Your task to perform on an android device: Go to accessibility settings Image 0: 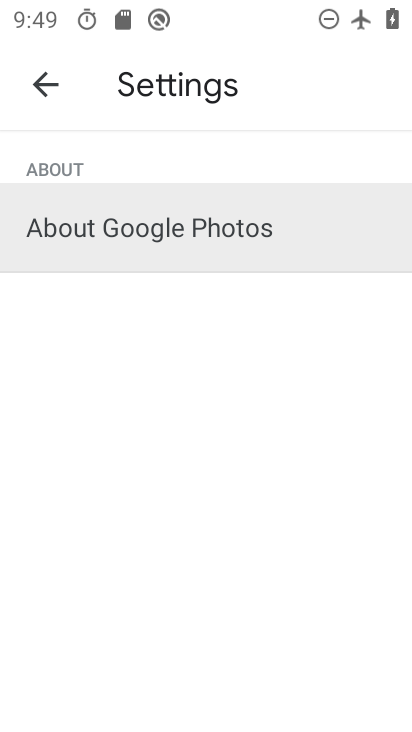
Step 0: press home button
Your task to perform on an android device: Go to accessibility settings Image 1: 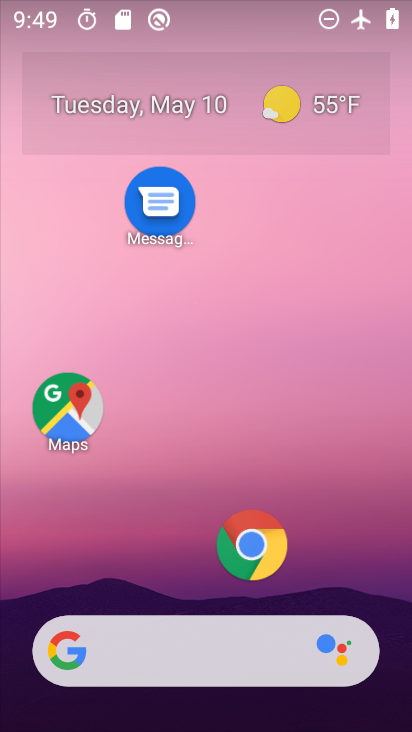
Step 1: drag from (190, 544) to (216, 101)
Your task to perform on an android device: Go to accessibility settings Image 2: 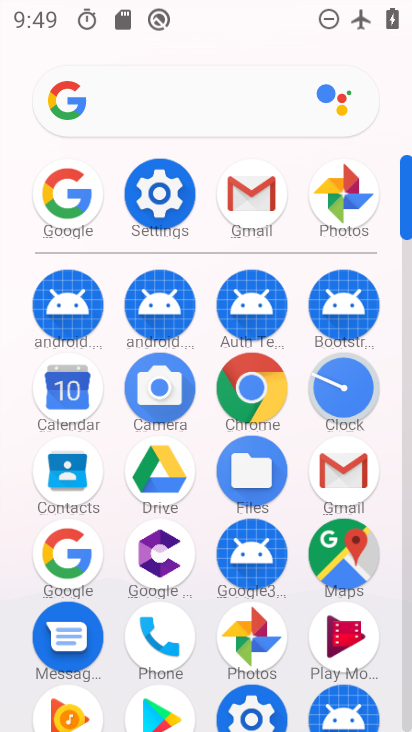
Step 2: click (170, 199)
Your task to perform on an android device: Go to accessibility settings Image 3: 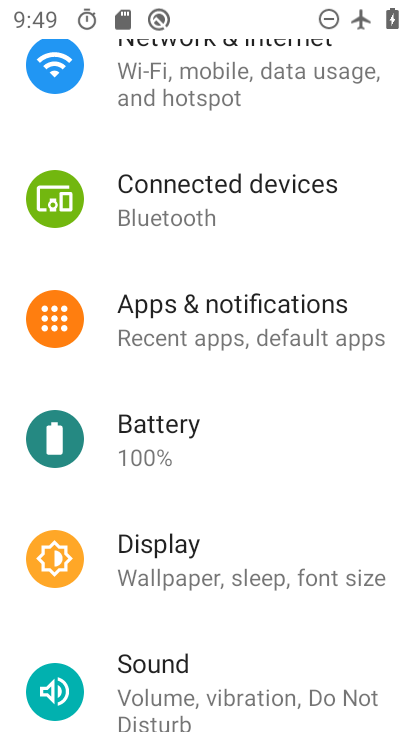
Step 3: drag from (201, 655) to (196, 310)
Your task to perform on an android device: Go to accessibility settings Image 4: 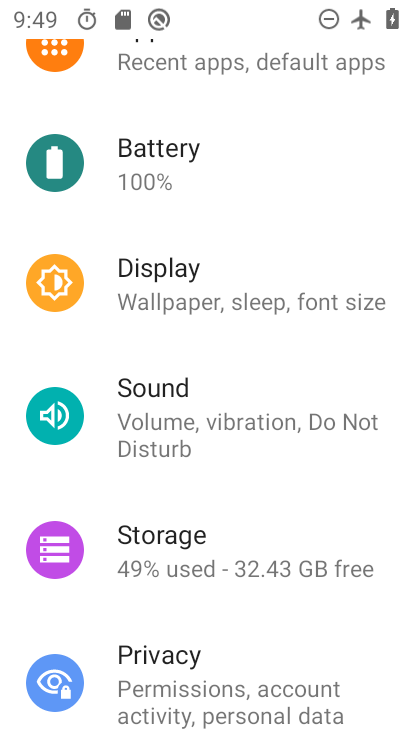
Step 4: drag from (207, 612) to (216, 257)
Your task to perform on an android device: Go to accessibility settings Image 5: 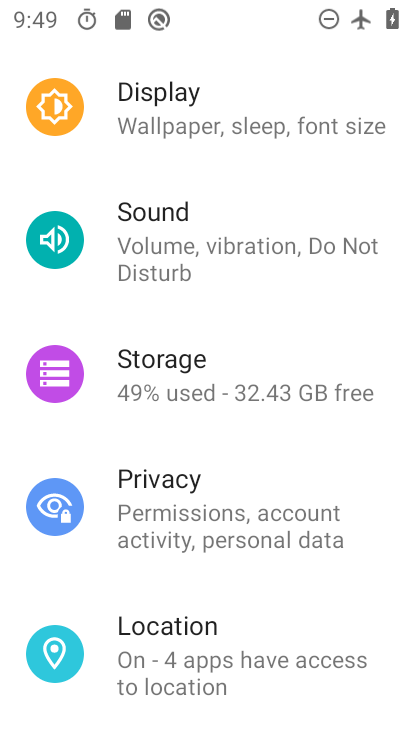
Step 5: drag from (204, 543) to (235, 260)
Your task to perform on an android device: Go to accessibility settings Image 6: 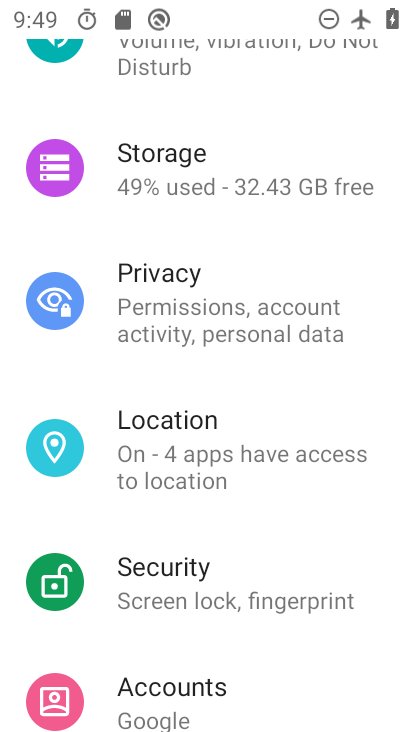
Step 6: drag from (188, 614) to (240, 314)
Your task to perform on an android device: Go to accessibility settings Image 7: 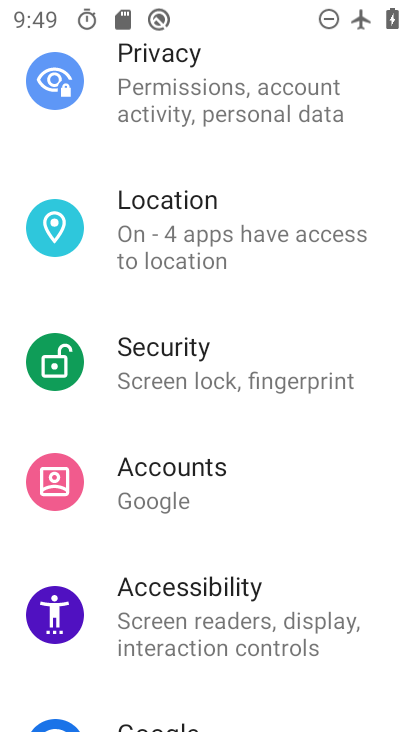
Step 7: click (186, 588)
Your task to perform on an android device: Go to accessibility settings Image 8: 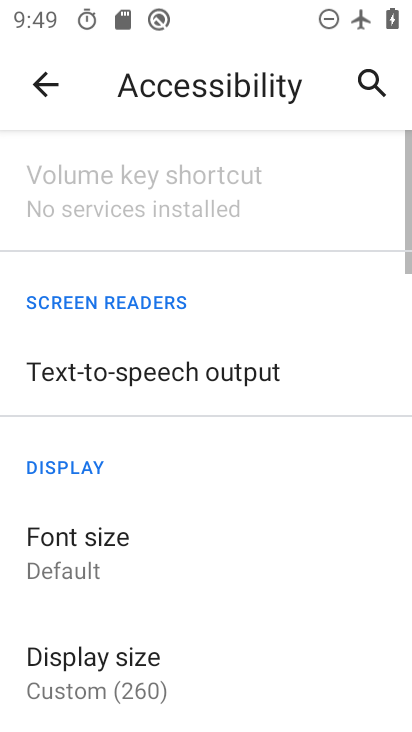
Step 8: task complete